Your task to perform on an android device: Go to sound settings Image 0: 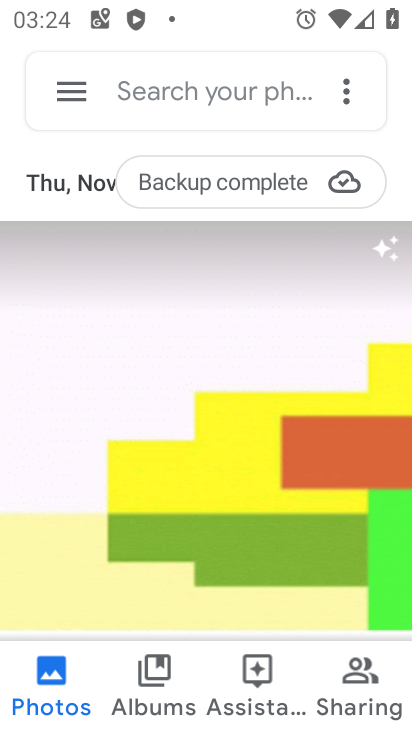
Step 0: press home button
Your task to perform on an android device: Go to sound settings Image 1: 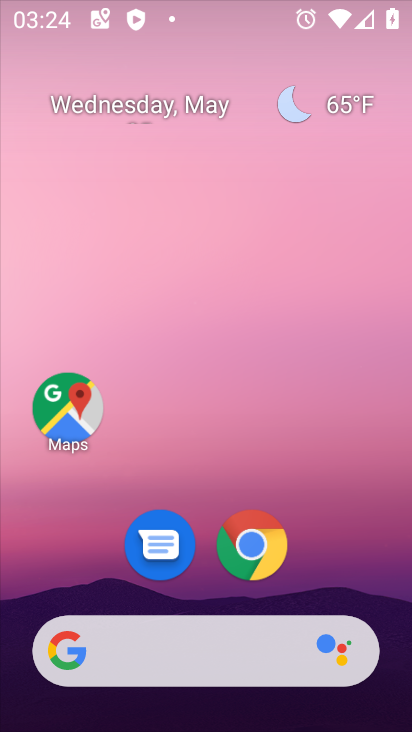
Step 1: drag from (348, 464) to (203, 33)
Your task to perform on an android device: Go to sound settings Image 2: 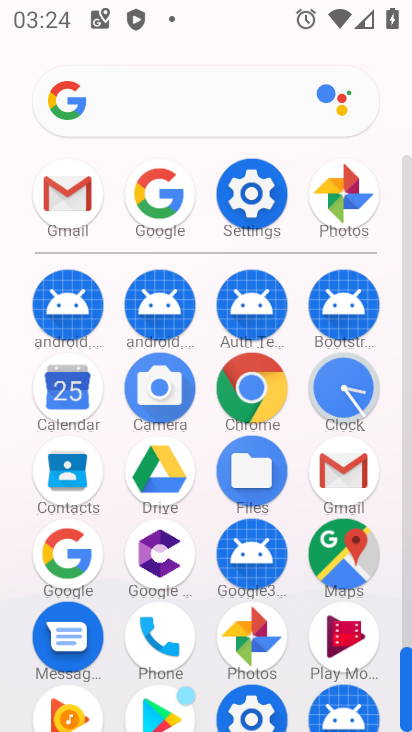
Step 2: click (246, 205)
Your task to perform on an android device: Go to sound settings Image 3: 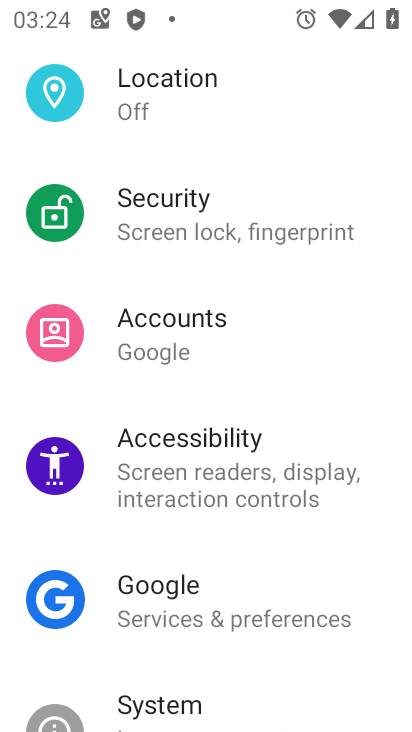
Step 3: drag from (259, 596) to (282, 156)
Your task to perform on an android device: Go to sound settings Image 4: 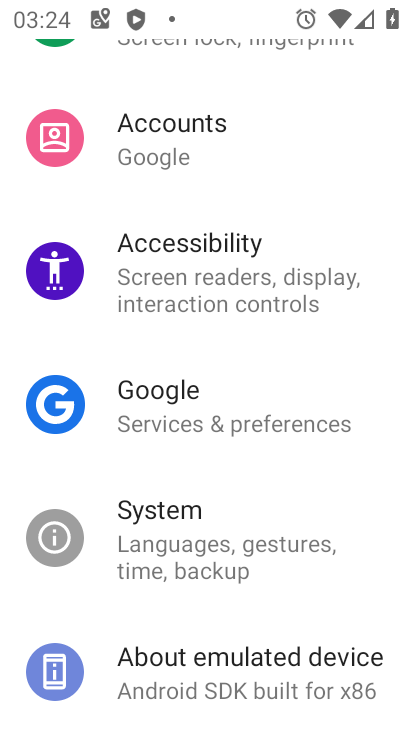
Step 4: drag from (271, 140) to (265, 675)
Your task to perform on an android device: Go to sound settings Image 5: 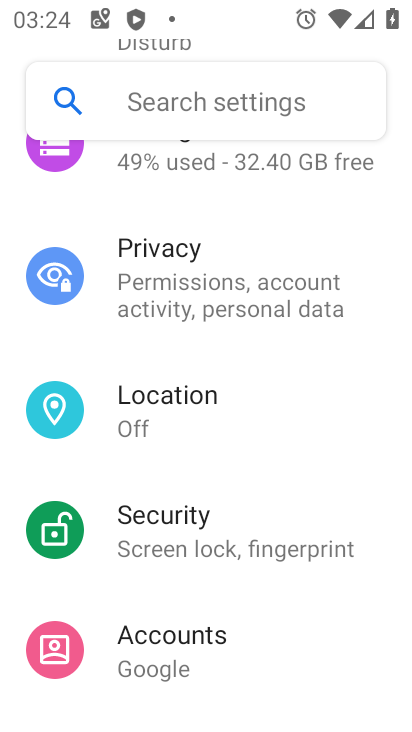
Step 5: drag from (238, 201) to (247, 692)
Your task to perform on an android device: Go to sound settings Image 6: 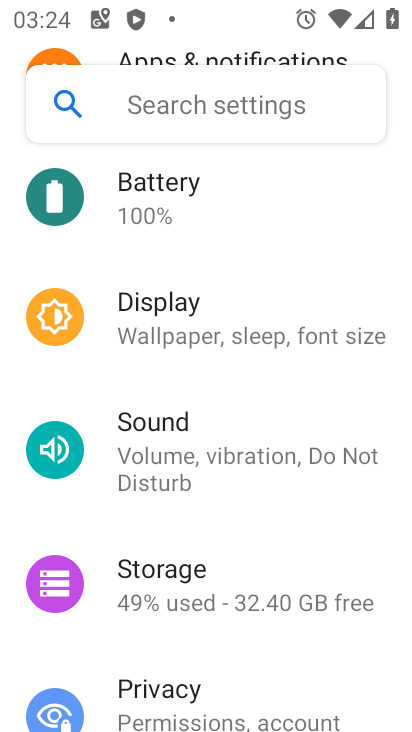
Step 6: click (227, 455)
Your task to perform on an android device: Go to sound settings Image 7: 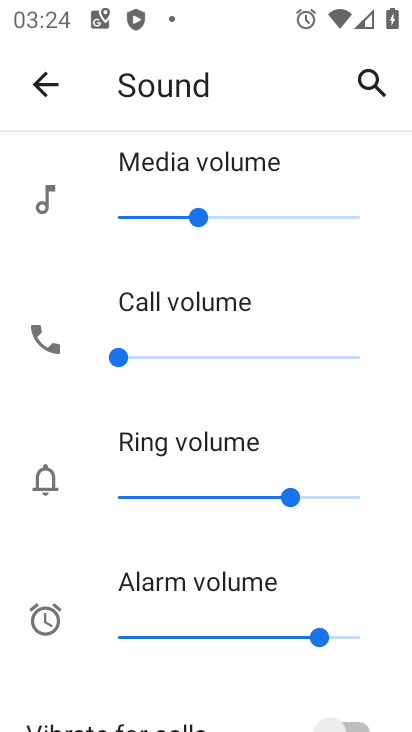
Step 7: task complete